Your task to perform on an android device: turn on wifi Image 0: 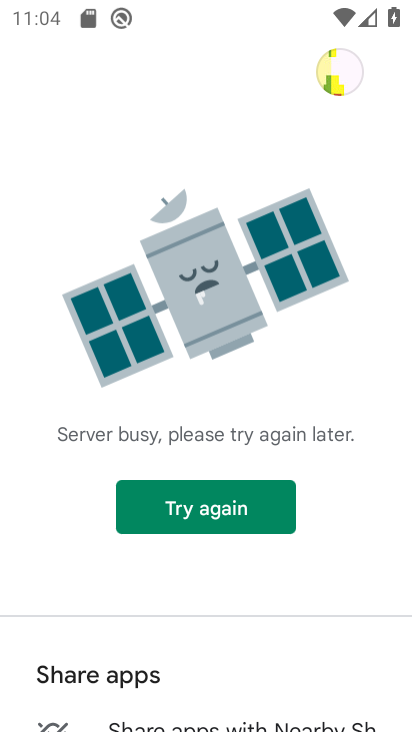
Step 0: press home button
Your task to perform on an android device: turn on wifi Image 1: 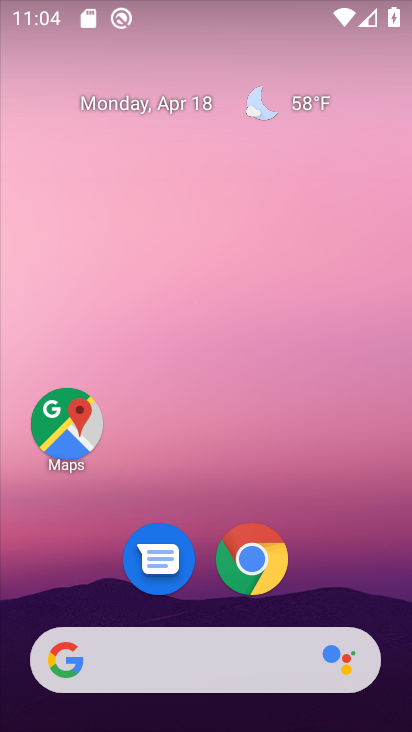
Step 1: drag from (189, 257) to (168, 82)
Your task to perform on an android device: turn on wifi Image 2: 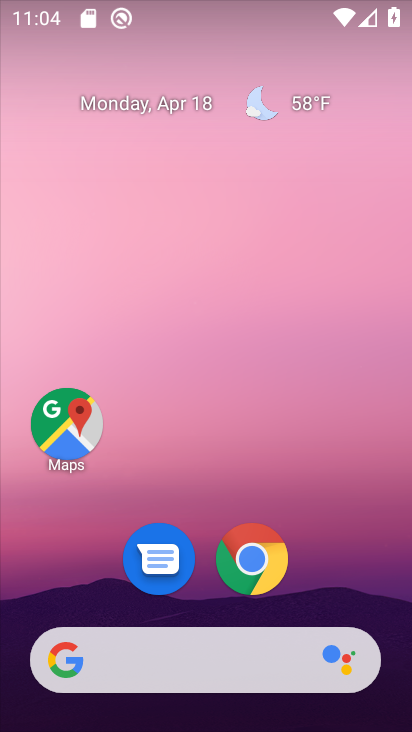
Step 2: drag from (329, 582) to (288, 65)
Your task to perform on an android device: turn on wifi Image 3: 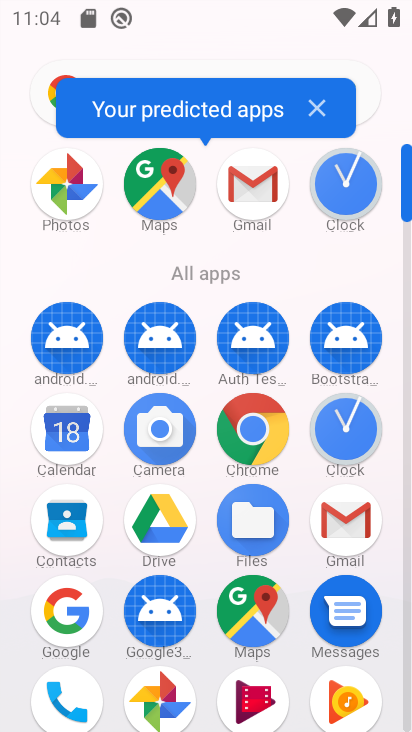
Step 3: drag from (202, 542) to (163, 164)
Your task to perform on an android device: turn on wifi Image 4: 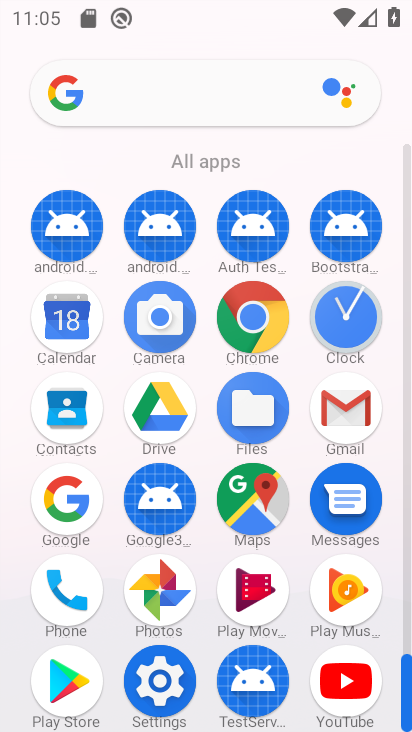
Step 4: click (156, 662)
Your task to perform on an android device: turn on wifi Image 5: 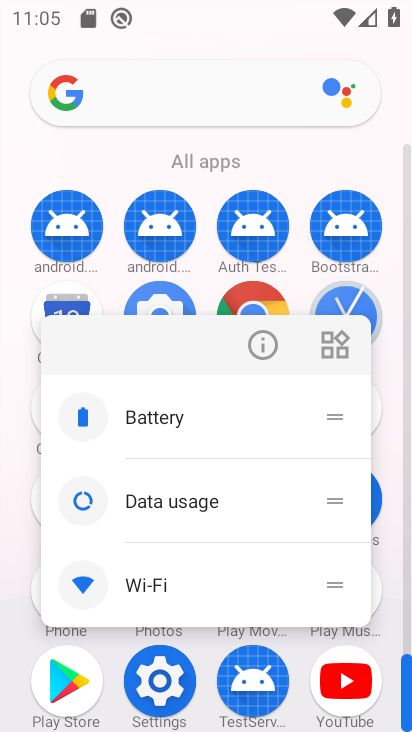
Step 5: click (178, 590)
Your task to perform on an android device: turn on wifi Image 6: 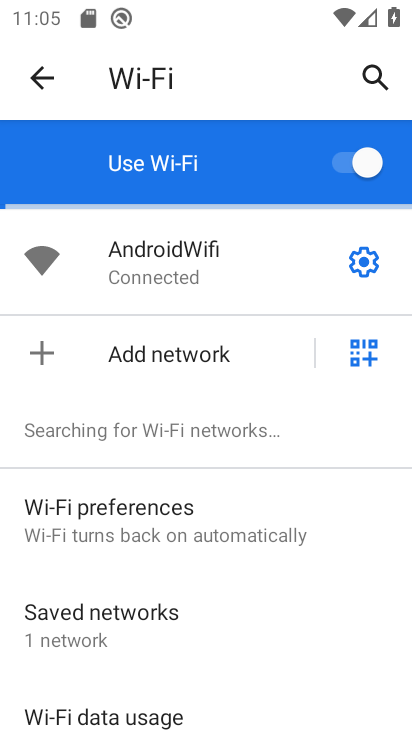
Step 6: task complete